Your task to perform on an android device: toggle notifications settings in the gmail app Image 0: 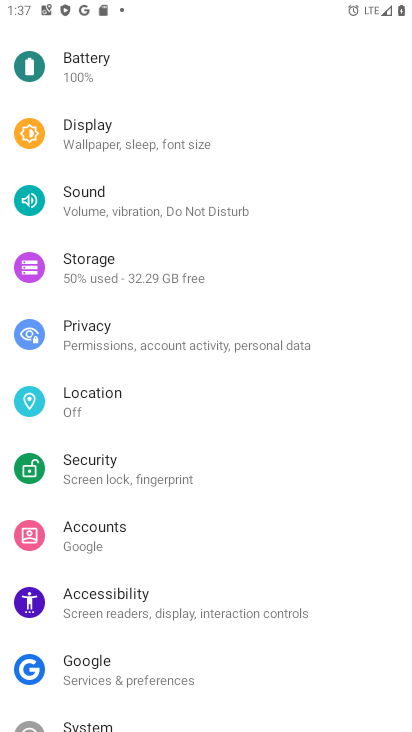
Step 0: press home button
Your task to perform on an android device: toggle notifications settings in the gmail app Image 1: 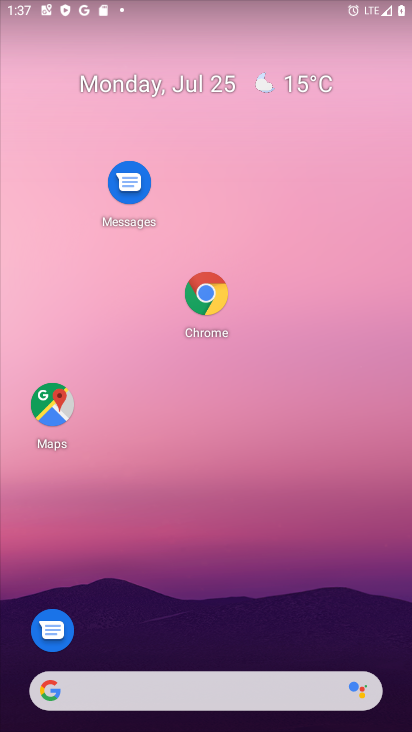
Step 1: drag from (310, 499) to (387, 721)
Your task to perform on an android device: toggle notifications settings in the gmail app Image 2: 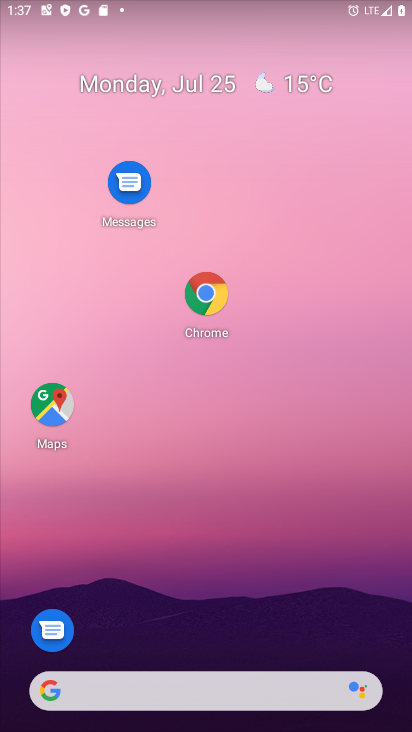
Step 2: drag from (373, 647) to (398, 49)
Your task to perform on an android device: toggle notifications settings in the gmail app Image 3: 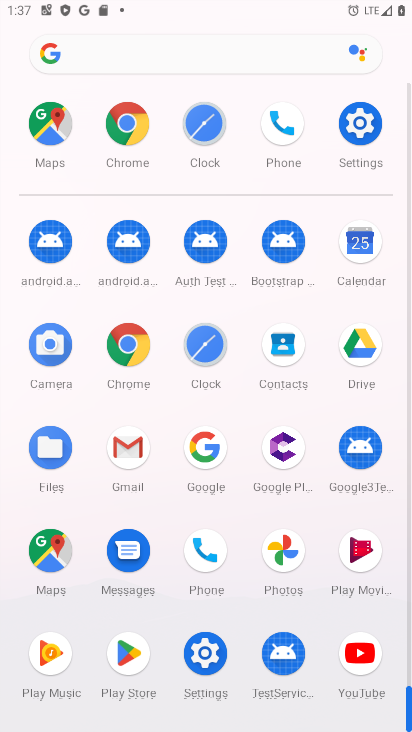
Step 3: click (134, 441)
Your task to perform on an android device: toggle notifications settings in the gmail app Image 4: 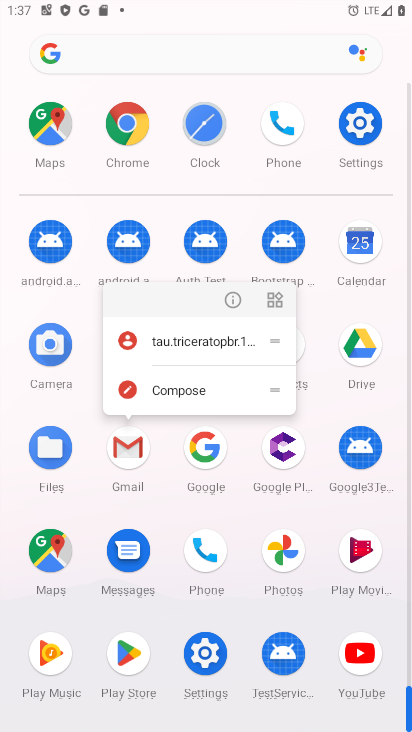
Step 4: click (233, 296)
Your task to perform on an android device: toggle notifications settings in the gmail app Image 5: 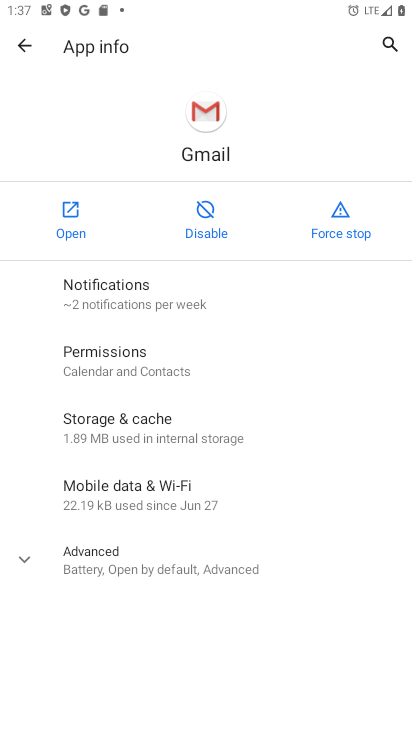
Step 5: click (163, 294)
Your task to perform on an android device: toggle notifications settings in the gmail app Image 6: 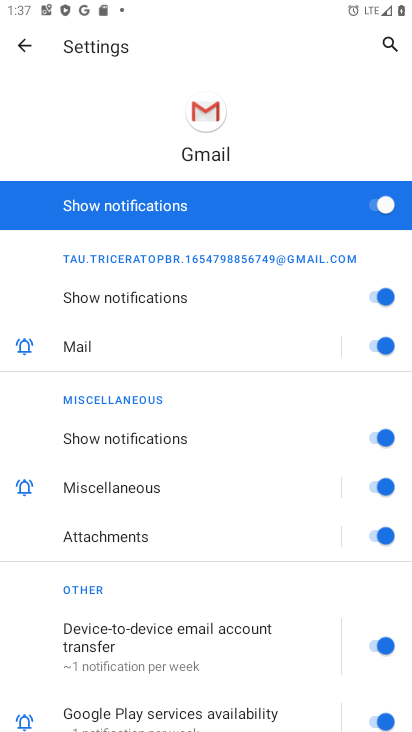
Step 6: click (331, 202)
Your task to perform on an android device: toggle notifications settings in the gmail app Image 7: 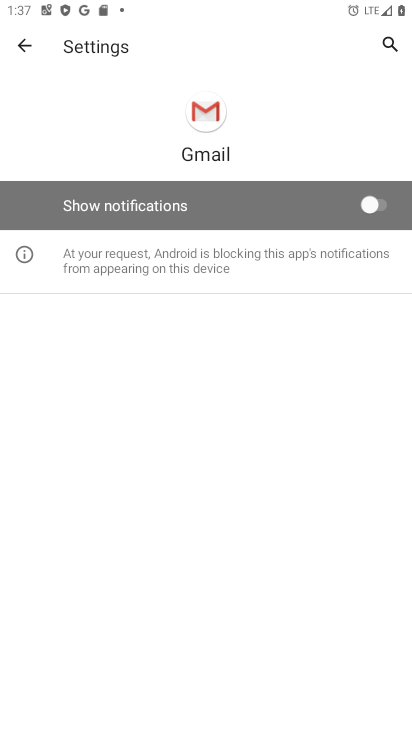
Step 7: task complete